Your task to perform on an android device: Open privacy settings Image 0: 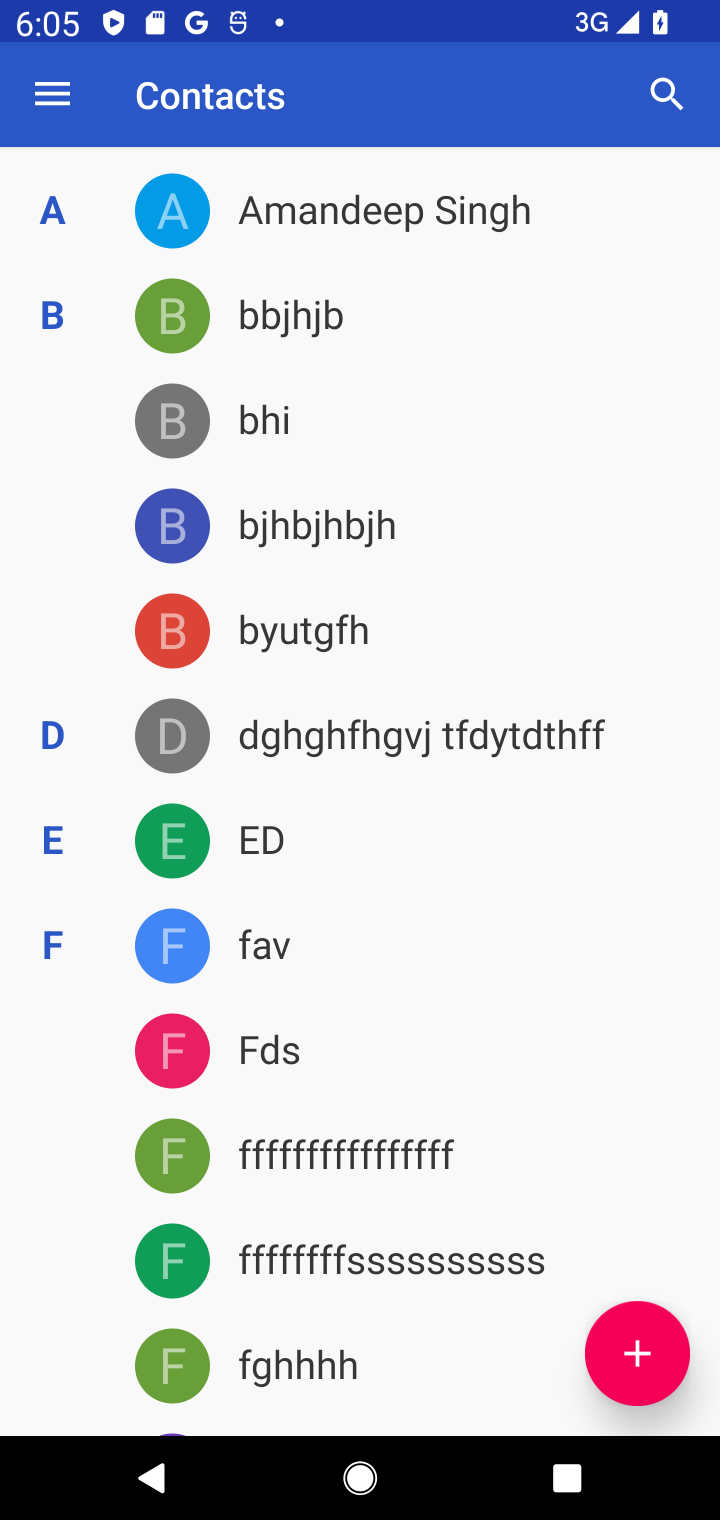
Step 0: press home button
Your task to perform on an android device: Open privacy settings Image 1: 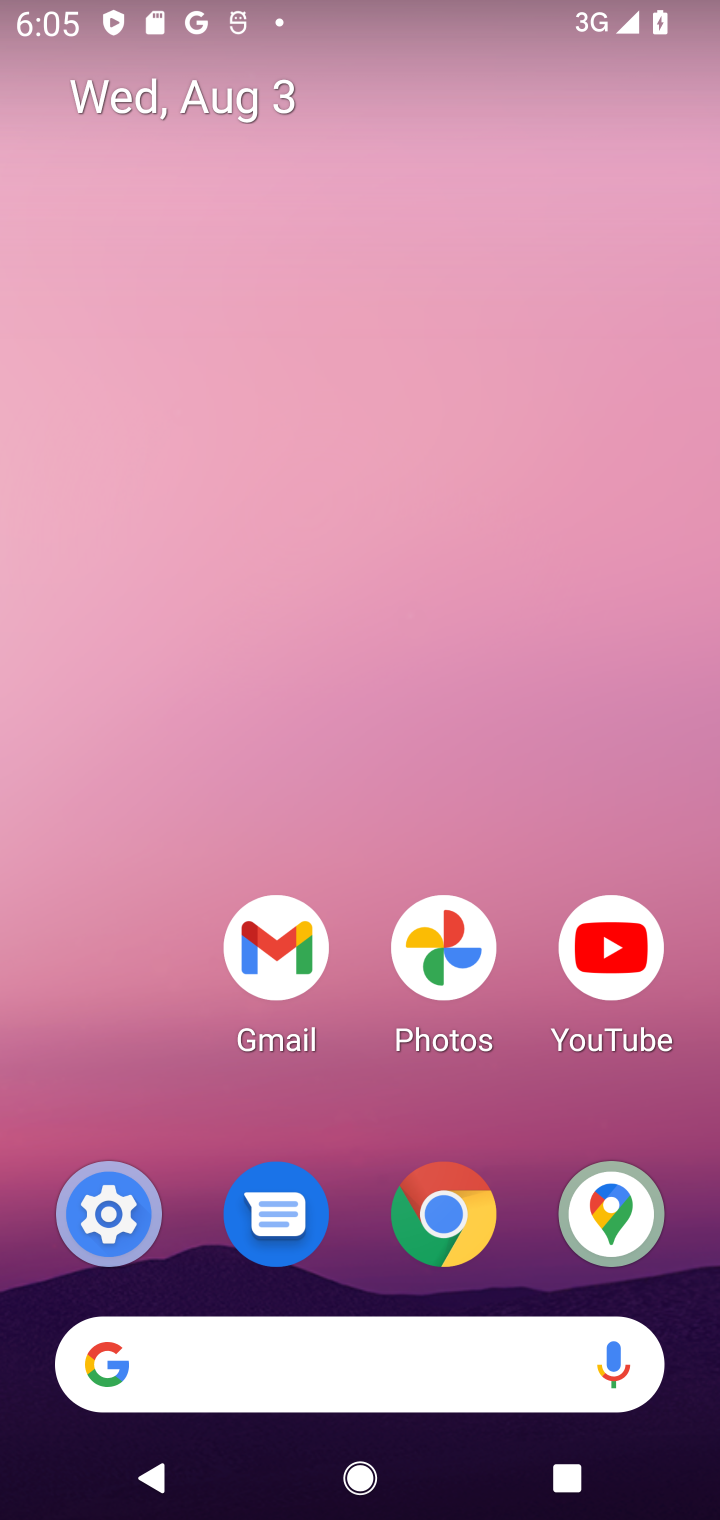
Step 1: click (80, 1215)
Your task to perform on an android device: Open privacy settings Image 2: 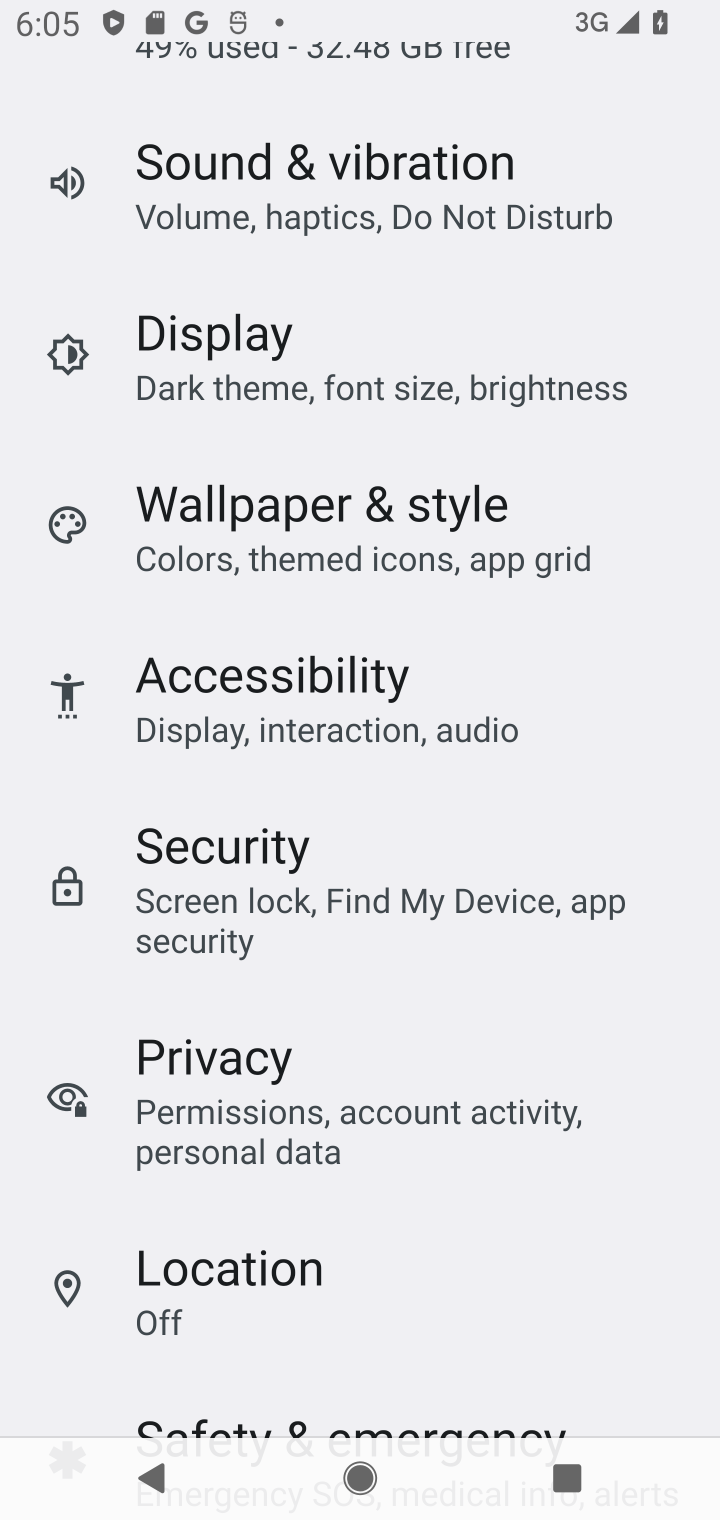
Step 2: click (289, 1143)
Your task to perform on an android device: Open privacy settings Image 3: 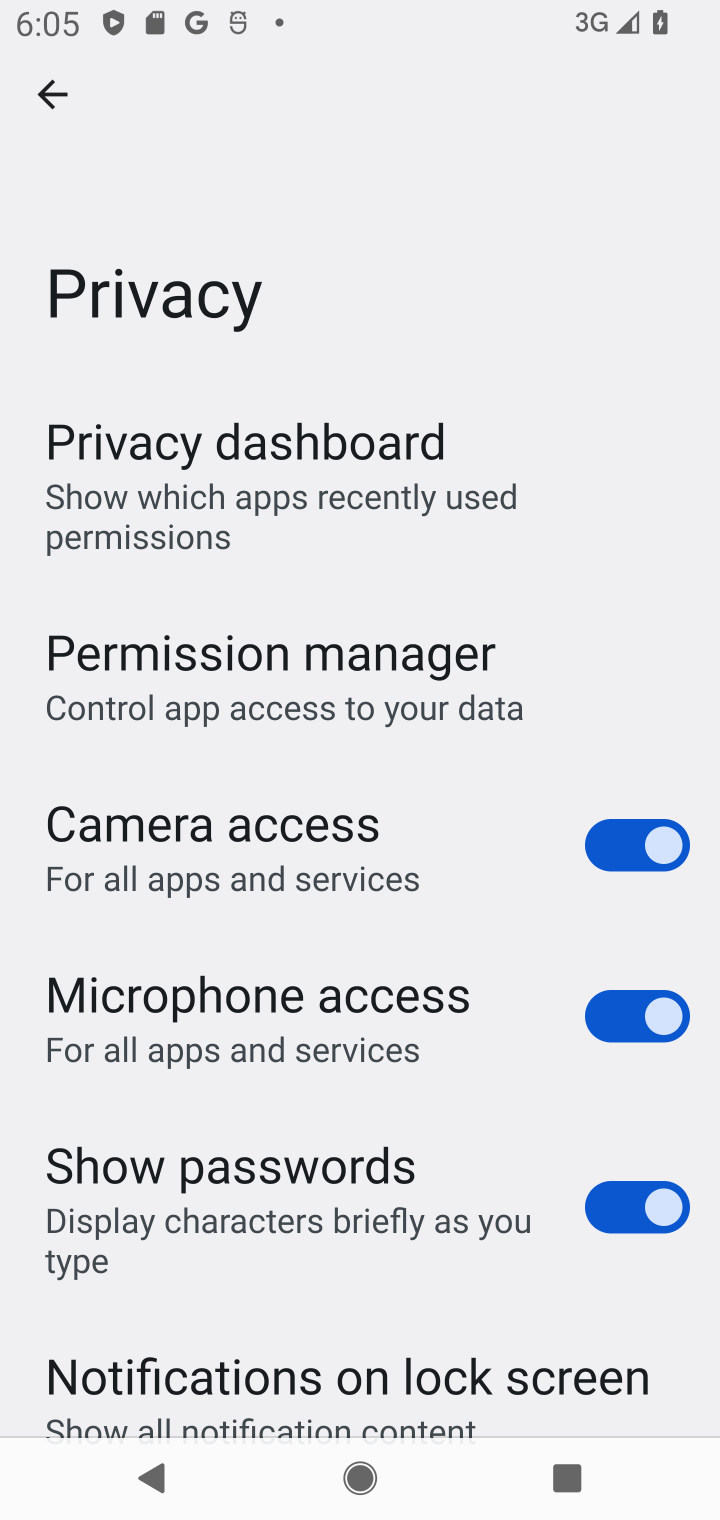
Step 3: task complete